Your task to perform on an android device: Open Yahoo.com Image 0: 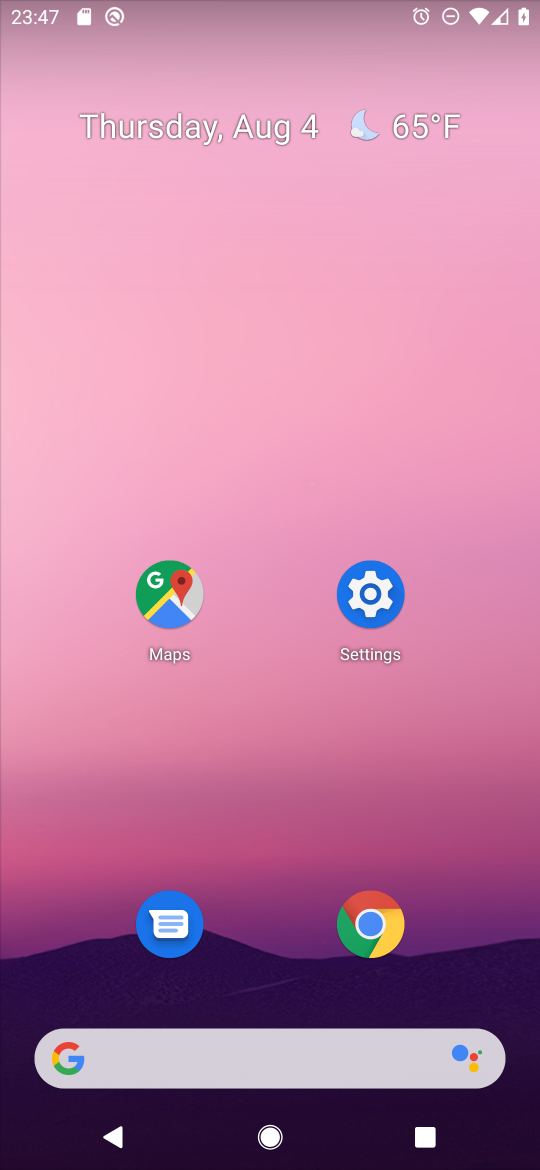
Step 0: click (368, 929)
Your task to perform on an android device: Open Yahoo.com Image 1: 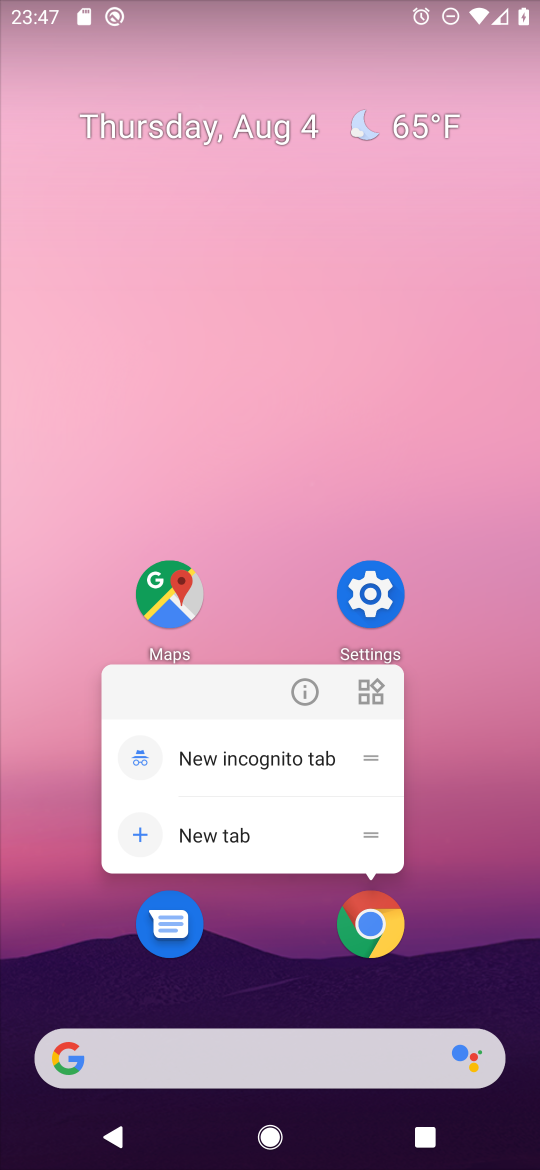
Step 1: click (368, 929)
Your task to perform on an android device: Open Yahoo.com Image 2: 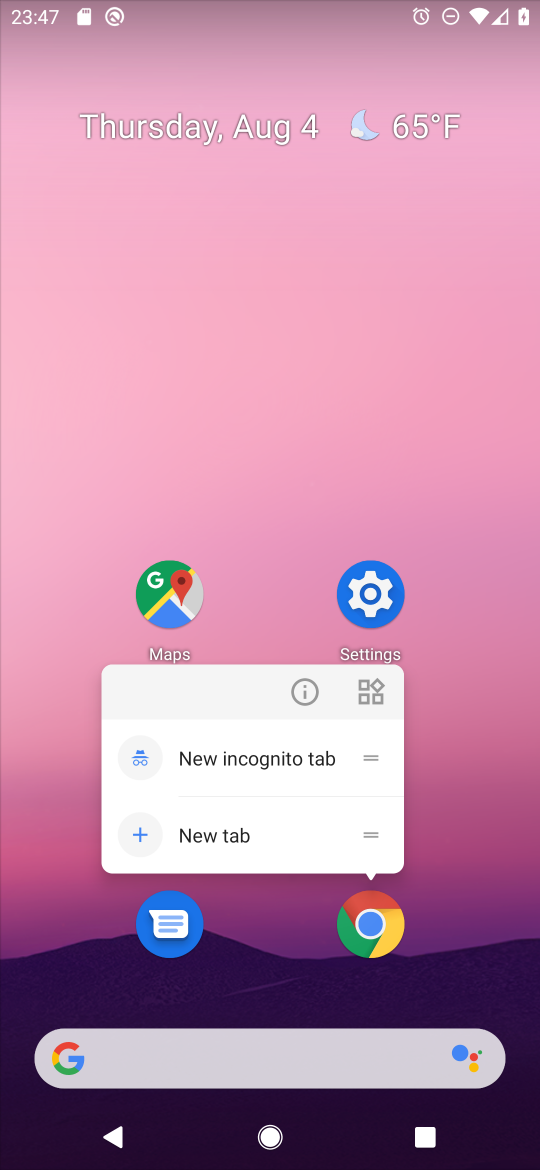
Step 2: click (379, 913)
Your task to perform on an android device: Open Yahoo.com Image 3: 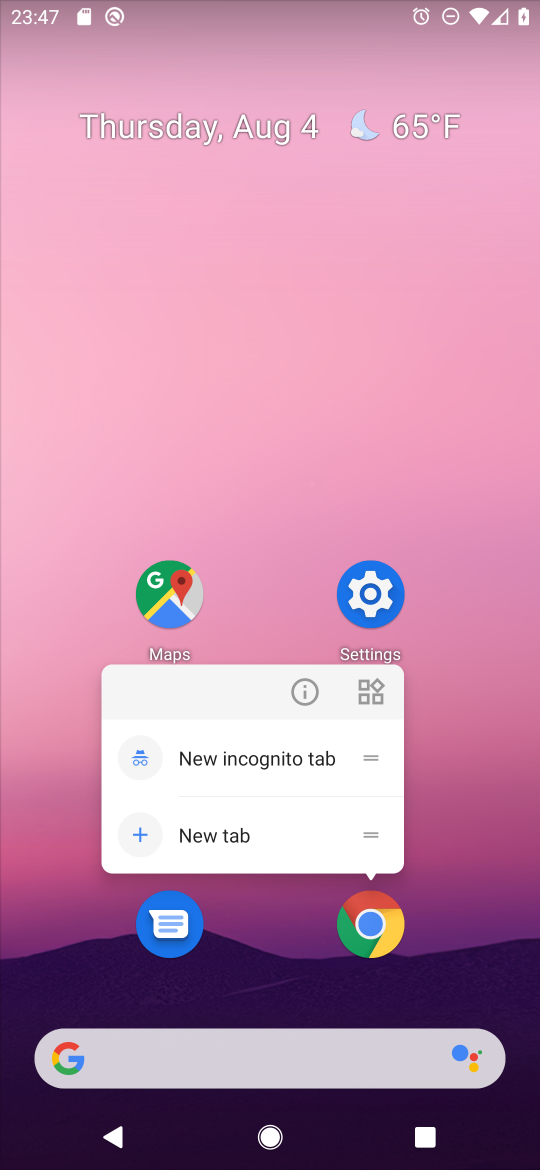
Step 3: click (374, 927)
Your task to perform on an android device: Open Yahoo.com Image 4: 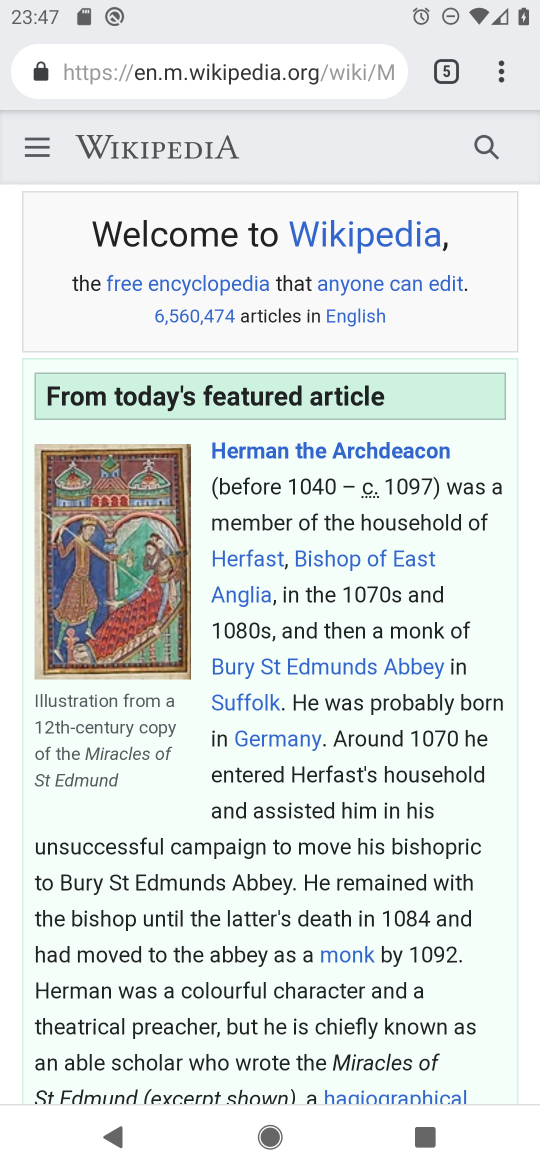
Step 4: drag from (494, 64) to (300, 144)
Your task to perform on an android device: Open Yahoo.com Image 5: 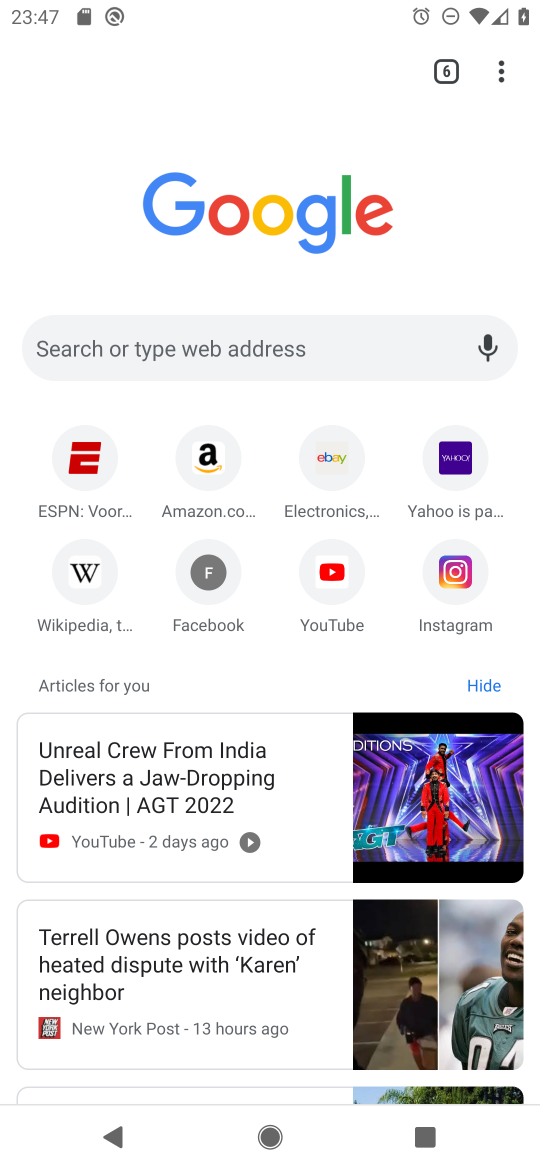
Step 5: click (468, 474)
Your task to perform on an android device: Open Yahoo.com Image 6: 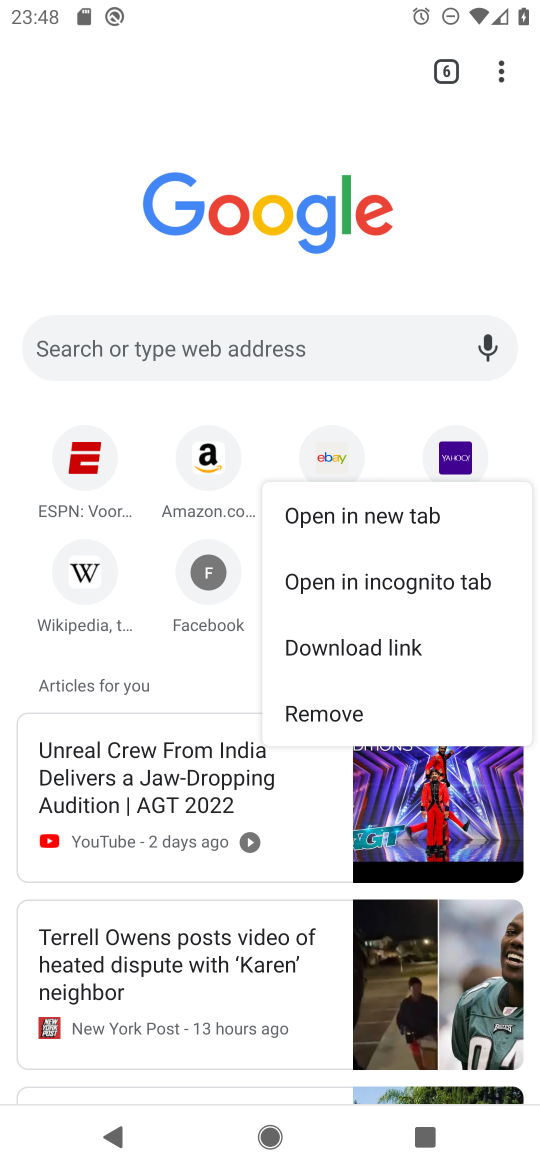
Step 6: click (456, 454)
Your task to perform on an android device: Open Yahoo.com Image 7: 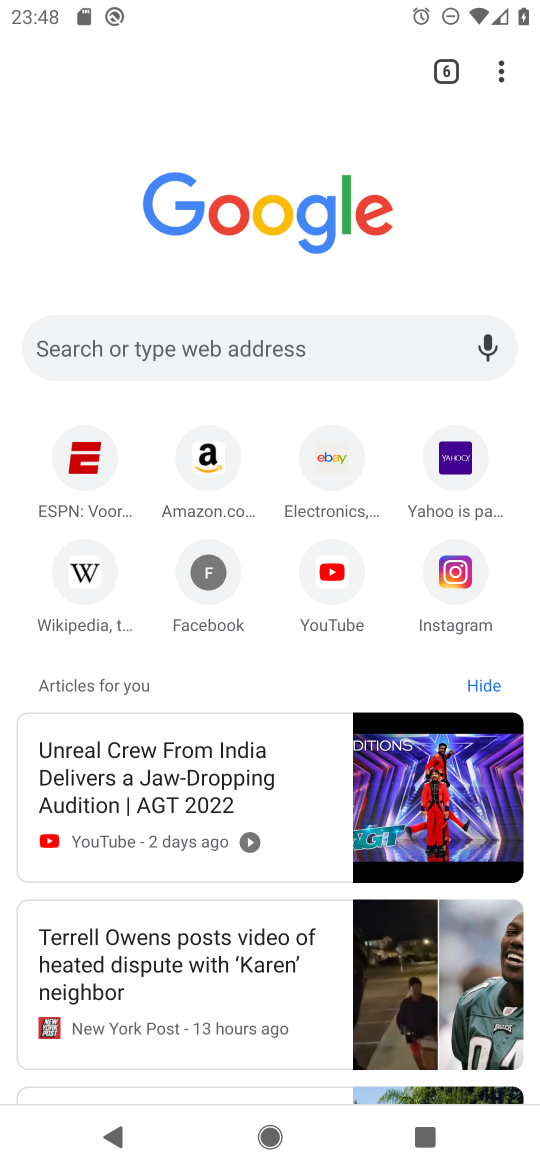
Step 7: click (456, 457)
Your task to perform on an android device: Open Yahoo.com Image 8: 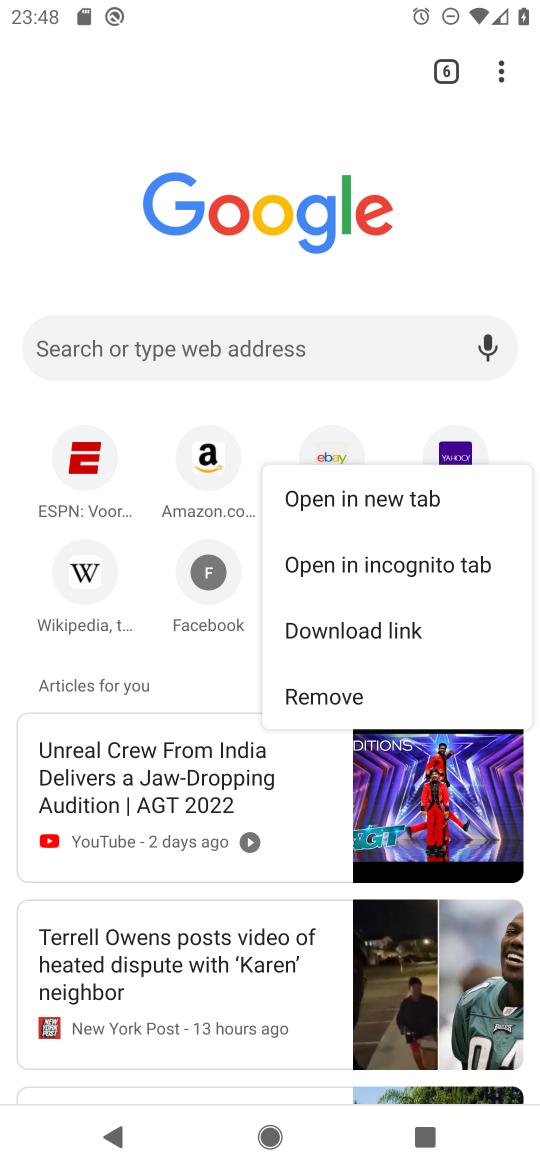
Step 8: click (456, 456)
Your task to perform on an android device: Open Yahoo.com Image 9: 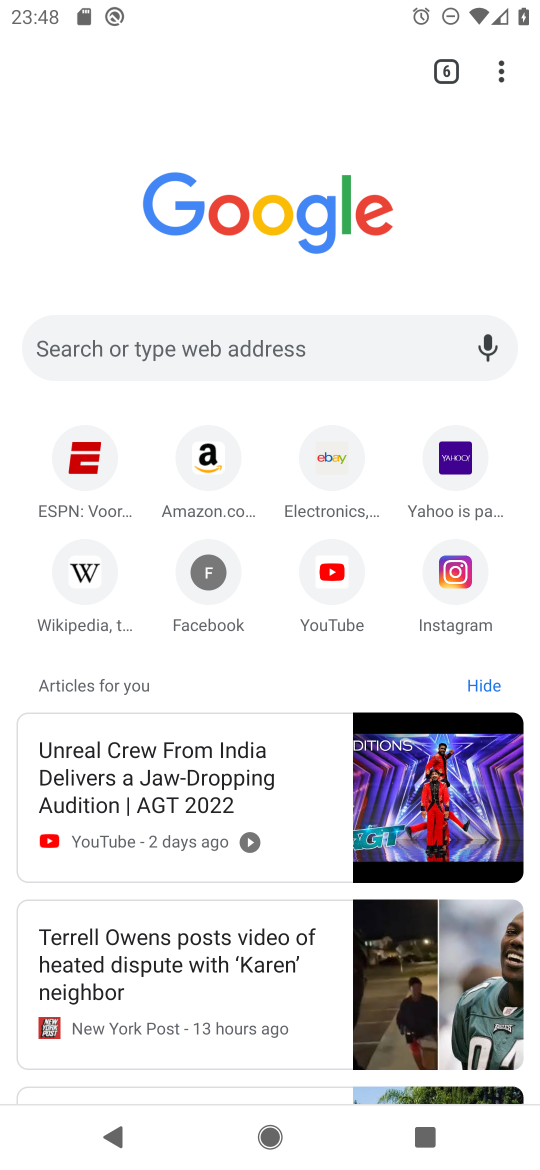
Step 9: click (457, 470)
Your task to perform on an android device: Open Yahoo.com Image 10: 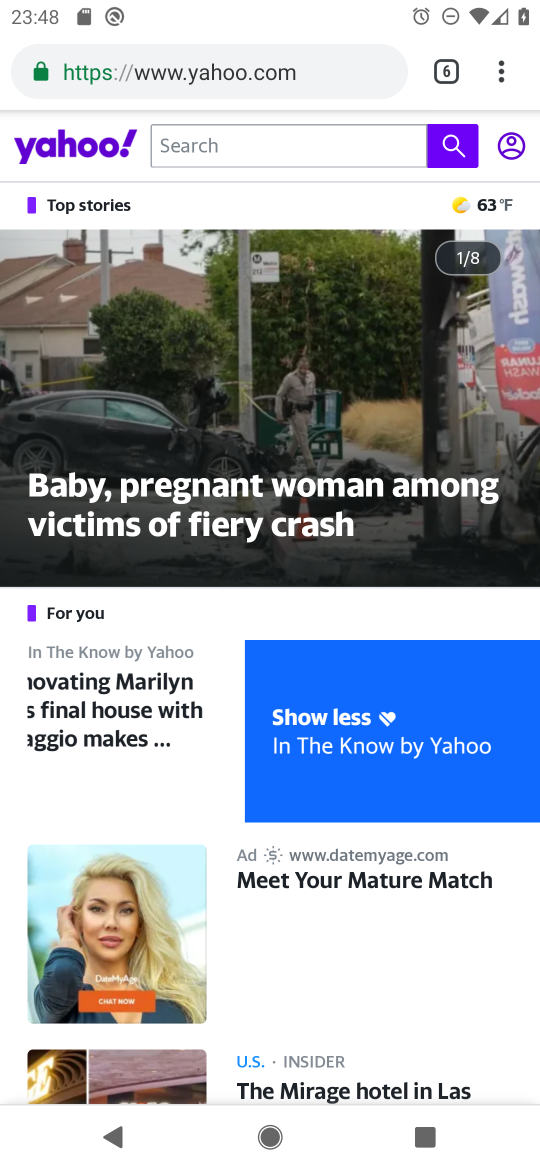
Step 10: task complete